Your task to perform on an android device: Is it going to rain this weekend? Image 0: 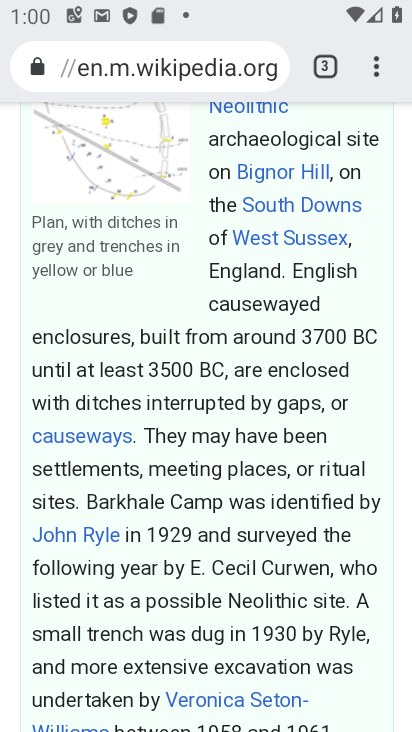
Step 0: press home button
Your task to perform on an android device: Is it going to rain this weekend? Image 1: 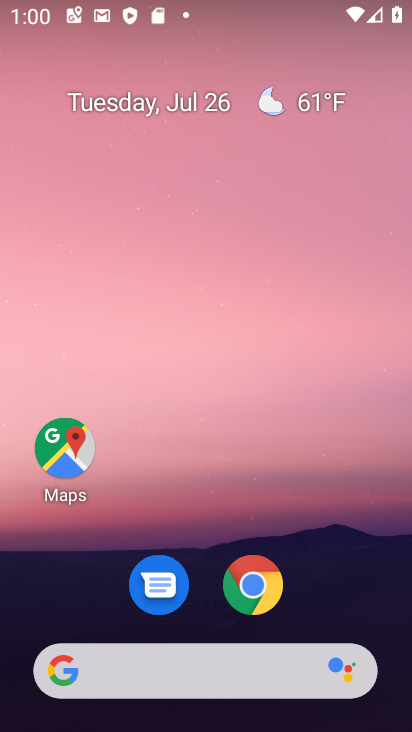
Step 1: click (153, 666)
Your task to perform on an android device: Is it going to rain this weekend? Image 2: 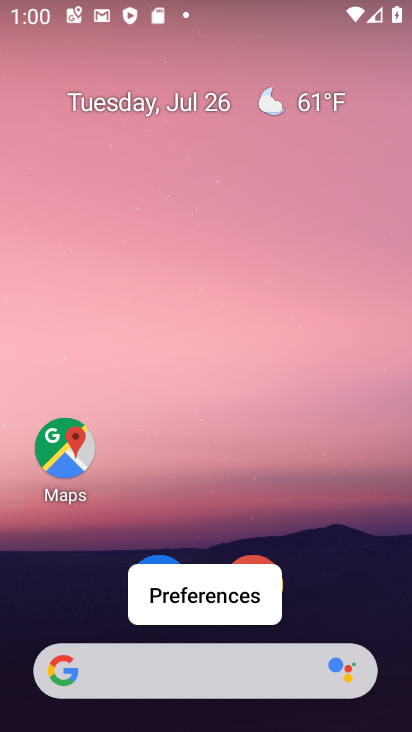
Step 2: click (151, 669)
Your task to perform on an android device: Is it going to rain this weekend? Image 3: 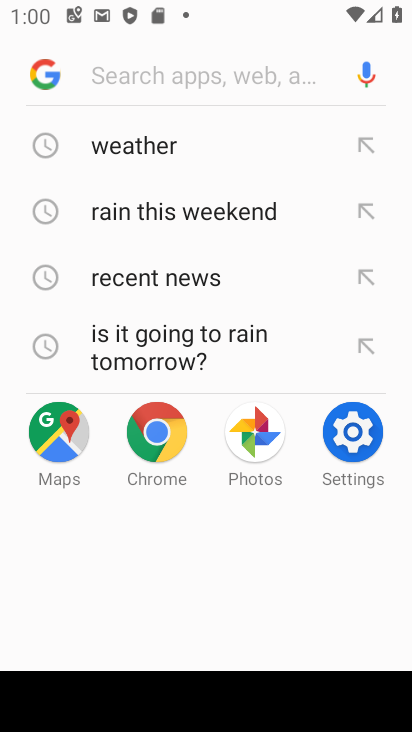
Step 3: click (163, 217)
Your task to perform on an android device: Is it going to rain this weekend? Image 4: 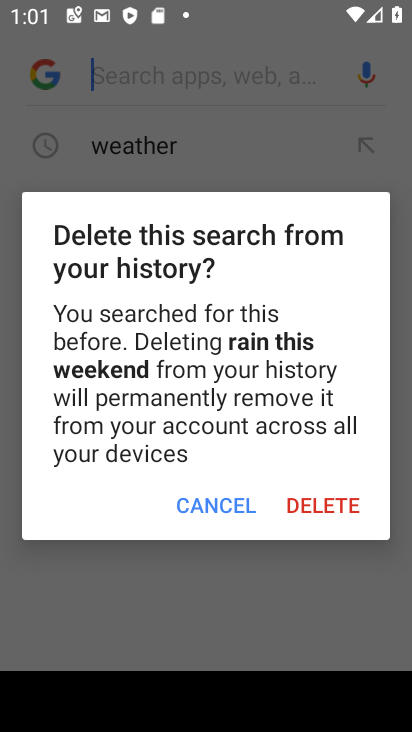
Step 4: click (232, 503)
Your task to perform on an android device: Is it going to rain this weekend? Image 5: 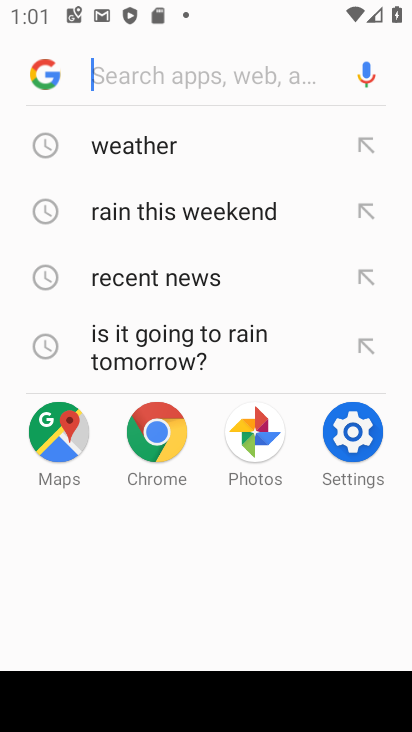
Step 5: click (213, 207)
Your task to perform on an android device: Is it going to rain this weekend? Image 6: 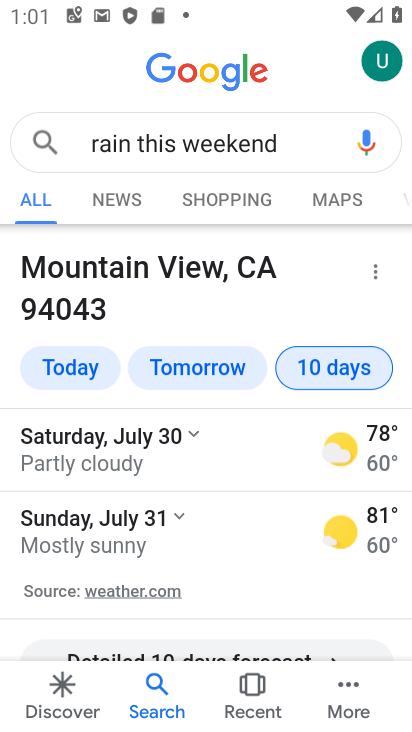
Step 6: task complete